Your task to perform on an android device: delete location history Image 0: 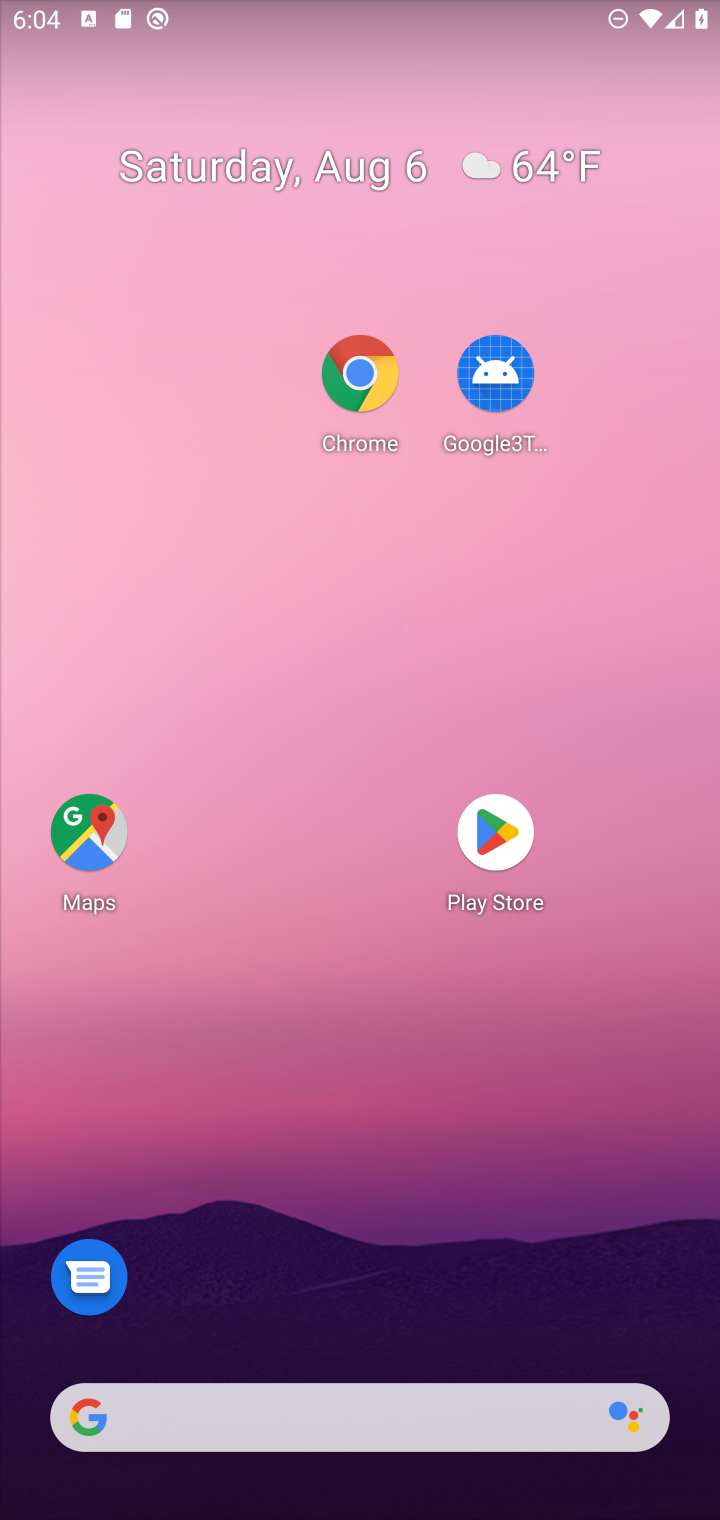
Step 0: drag from (439, 1422) to (677, 616)
Your task to perform on an android device: delete location history Image 1: 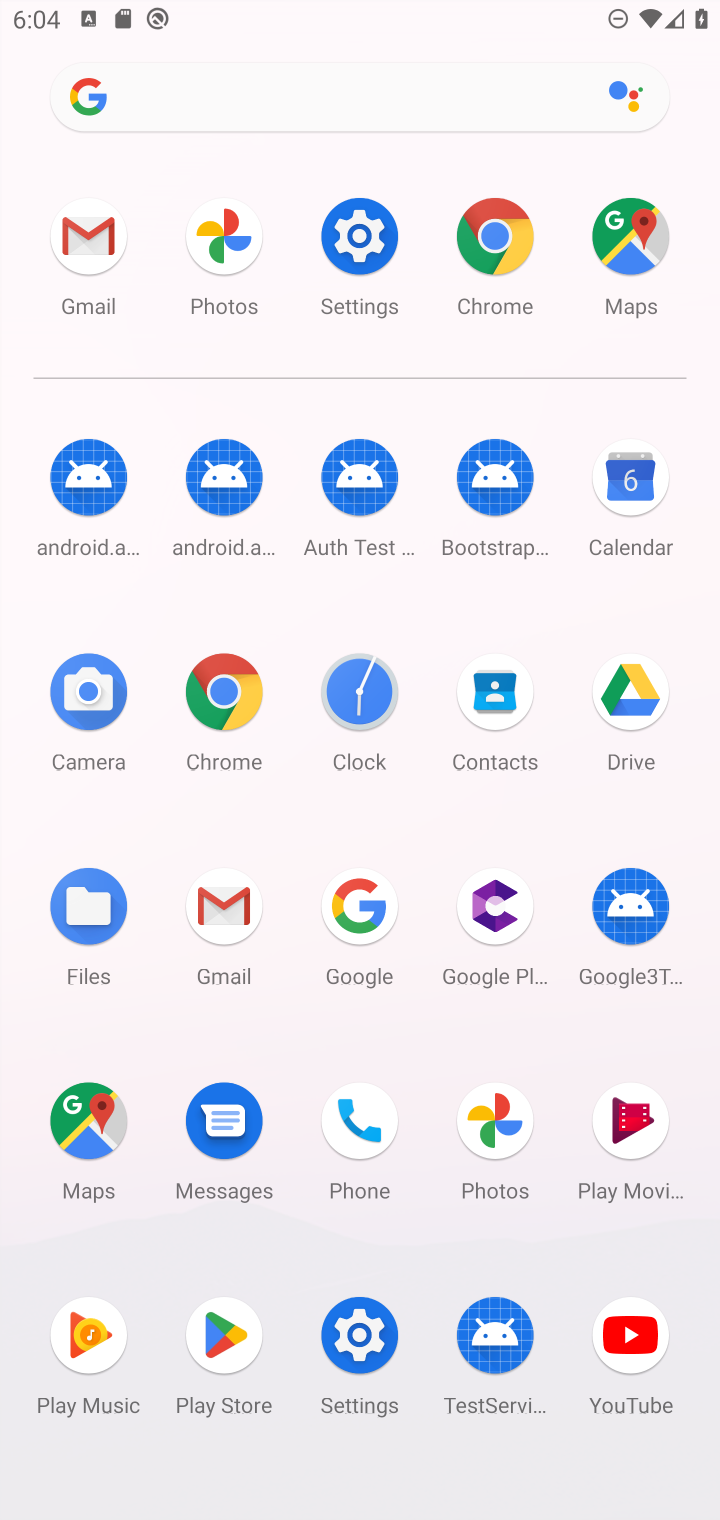
Step 1: click (68, 1099)
Your task to perform on an android device: delete location history Image 2: 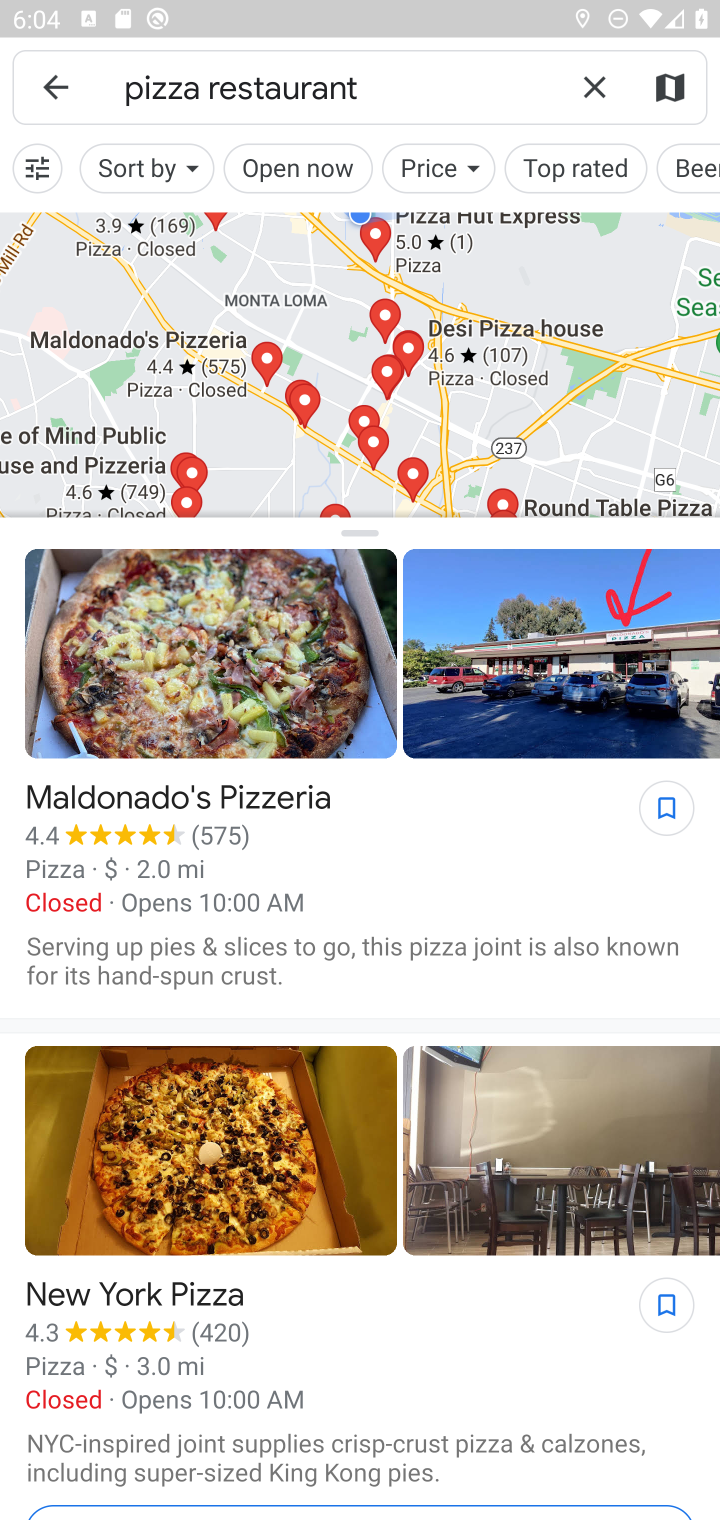
Step 2: press back button
Your task to perform on an android device: delete location history Image 3: 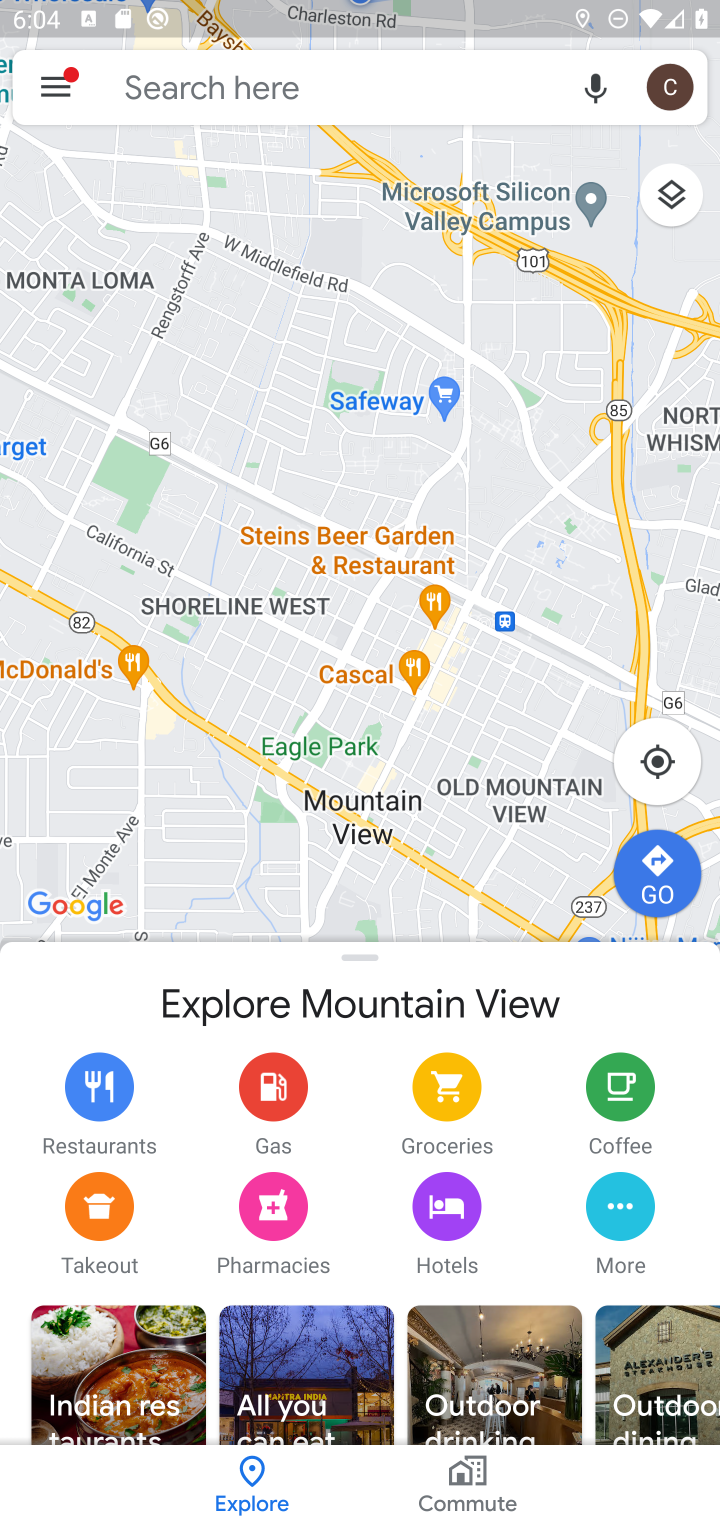
Step 3: click (32, 76)
Your task to perform on an android device: delete location history Image 4: 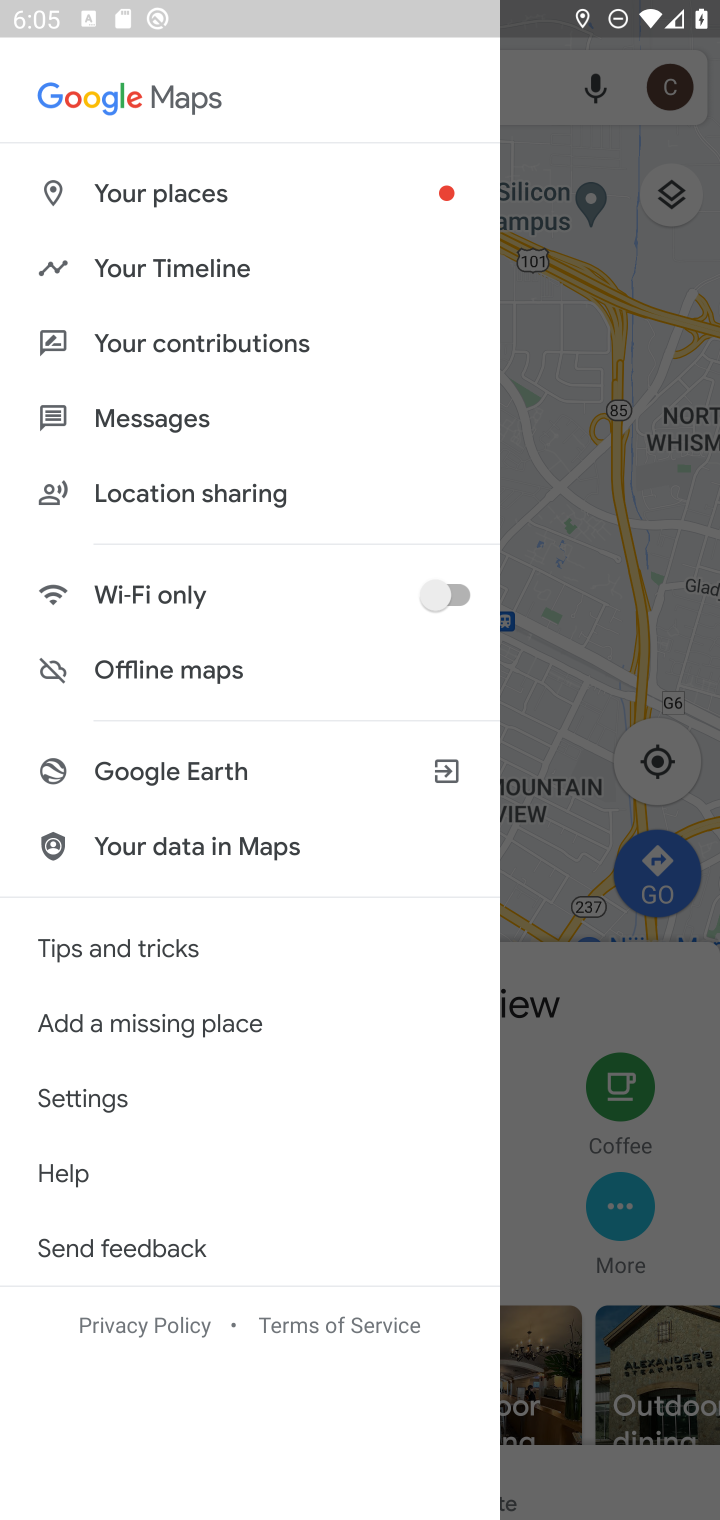
Step 4: click (223, 282)
Your task to perform on an android device: delete location history Image 5: 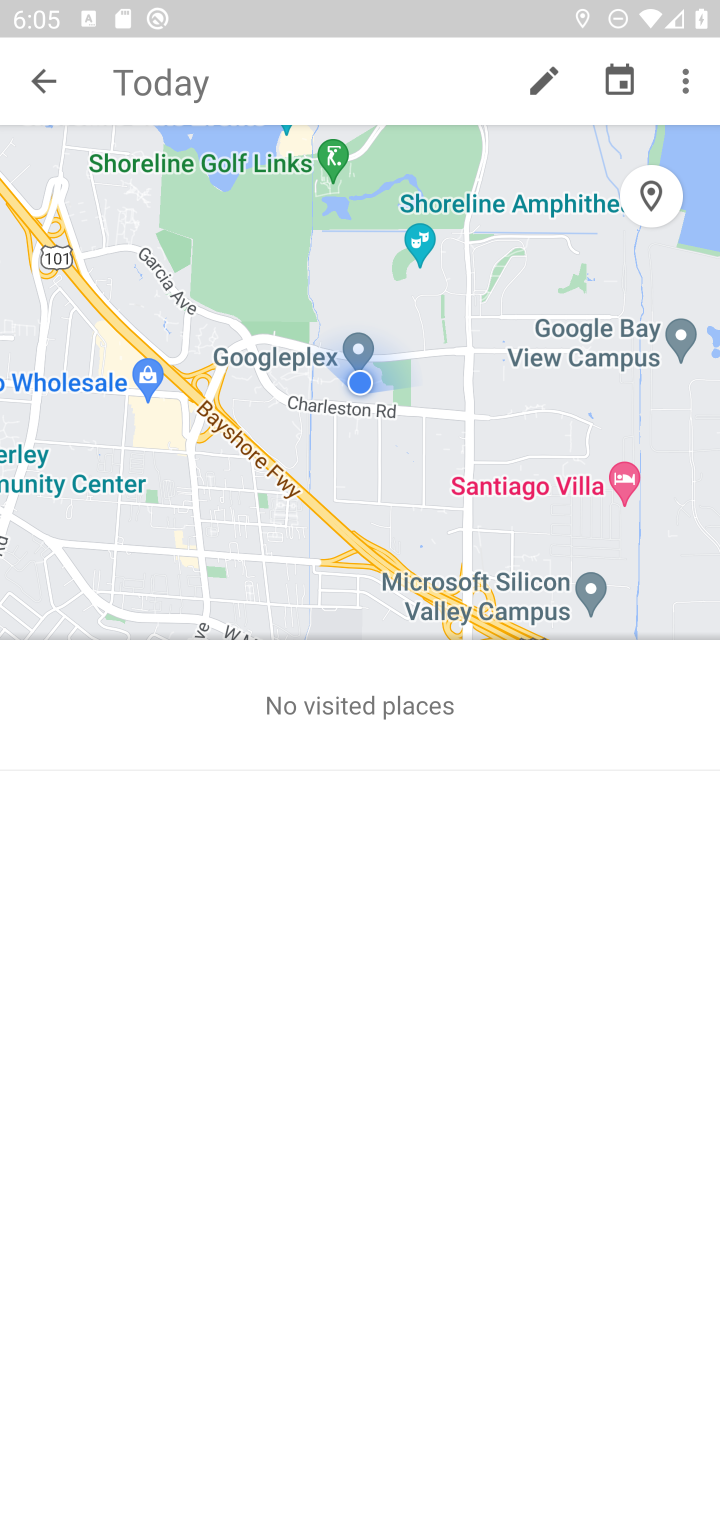
Step 5: click (681, 77)
Your task to perform on an android device: delete location history Image 6: 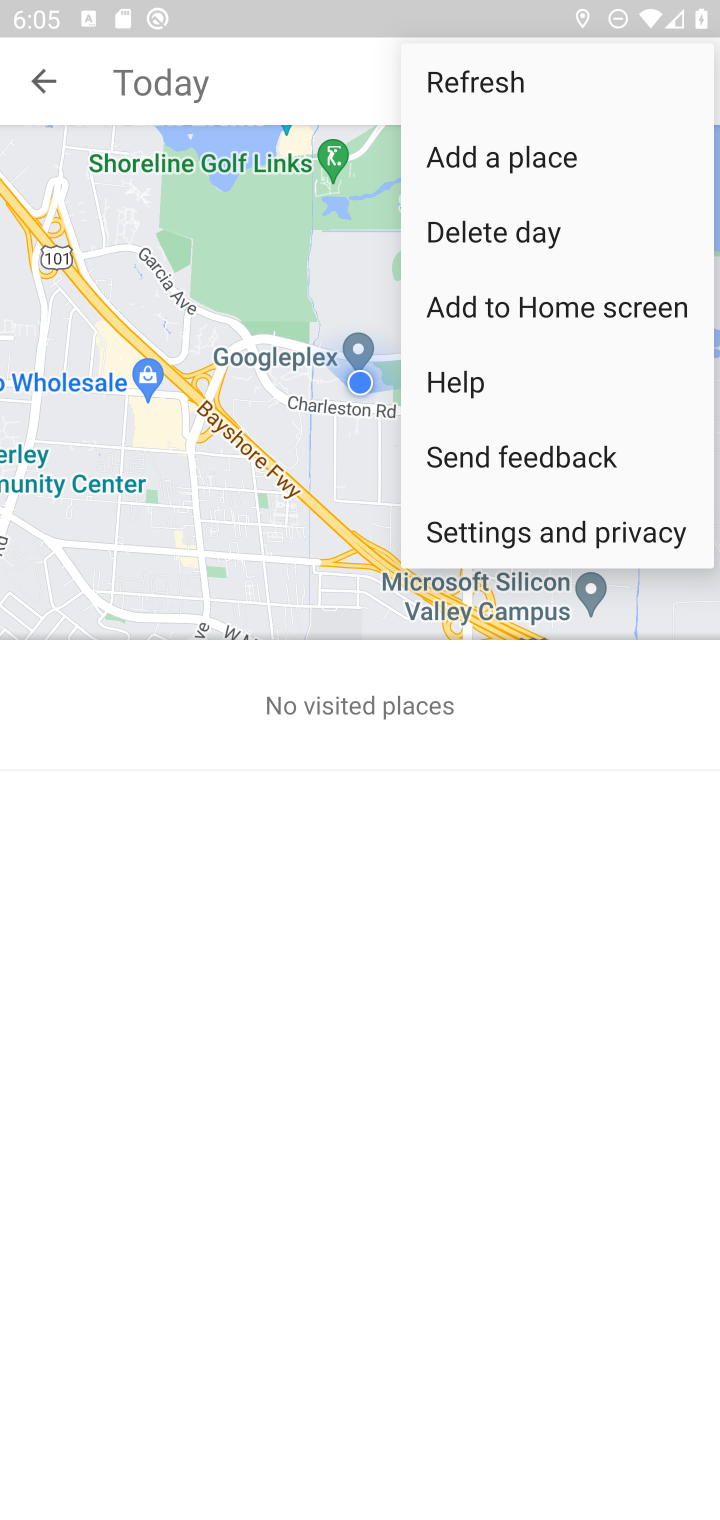
Step 6: click (681, 77)
Your task to perform on an android device: delete location history Image 7: 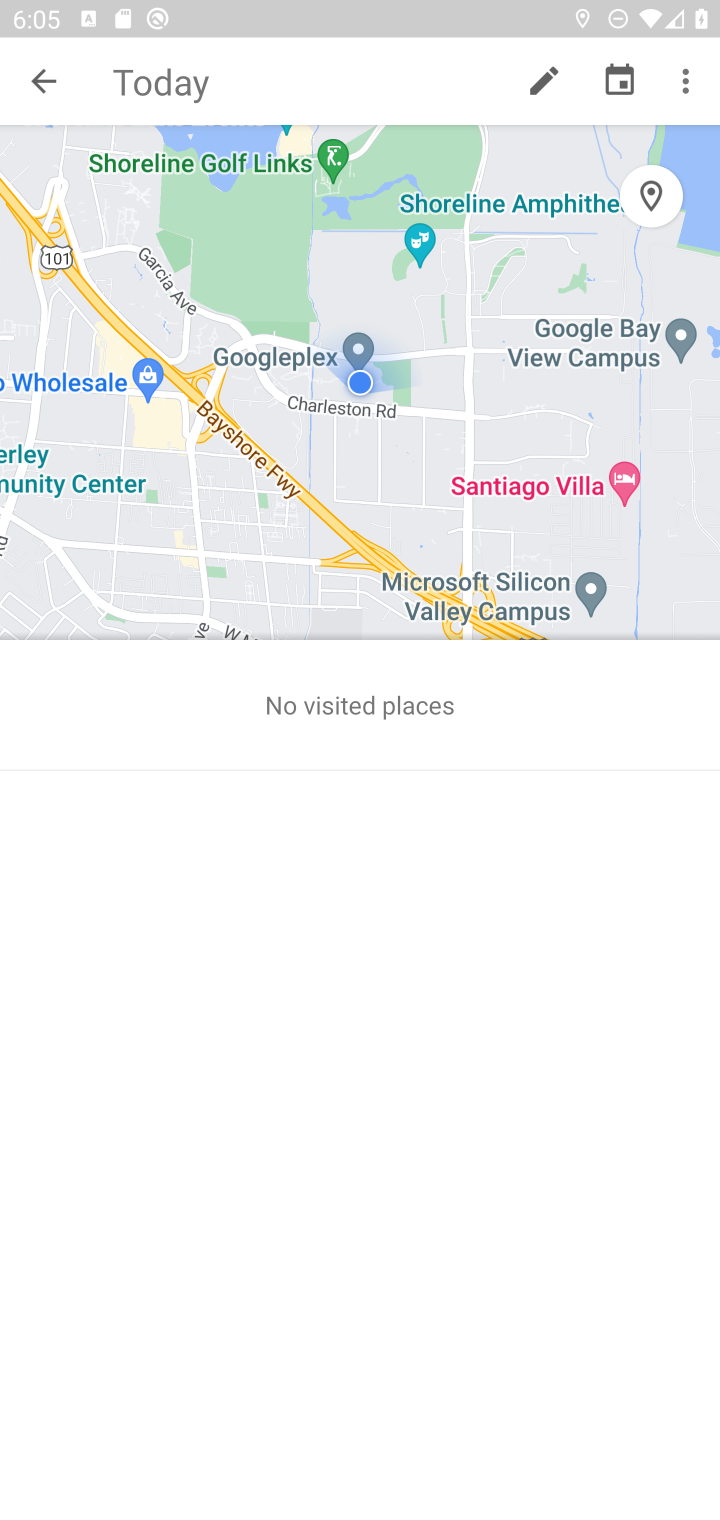
Step 7: click (681, 77)
Your task to perform on an android device: delete location history Image 8: 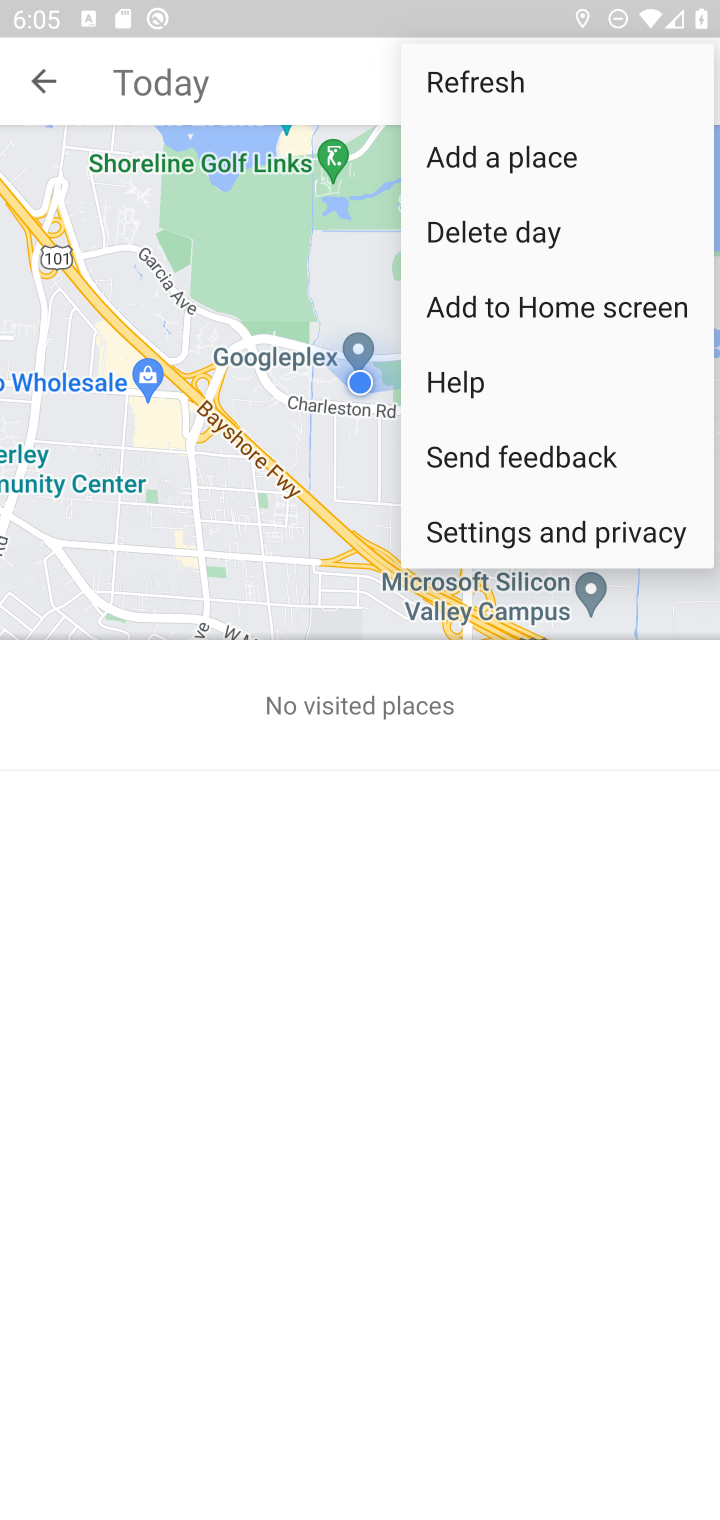
Step 8: click (468, 535)
Your task to perform on an android device: delete location history Image 9: 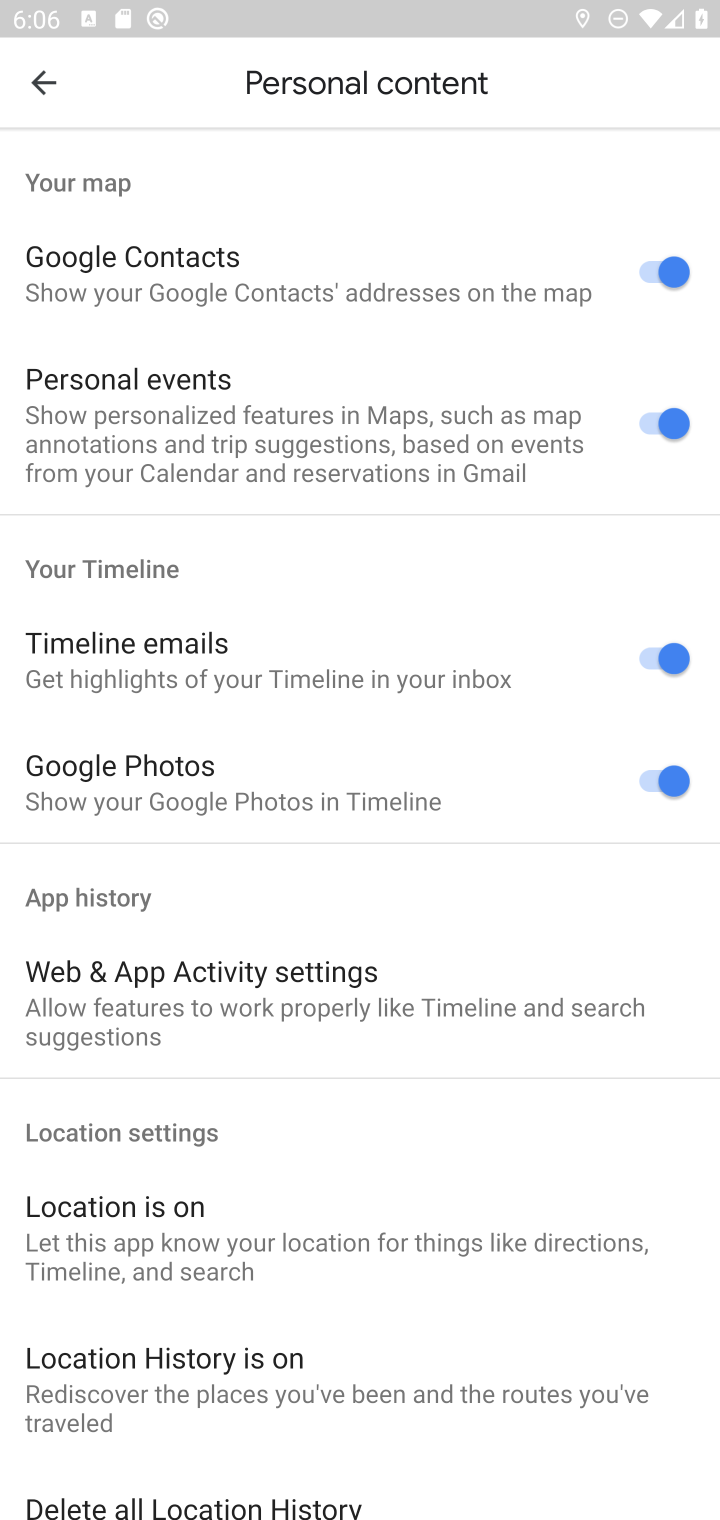
Step 9: drag from (615, 1443) to (621, 602)
Your task to perform on an android device: delete location history Image 10: 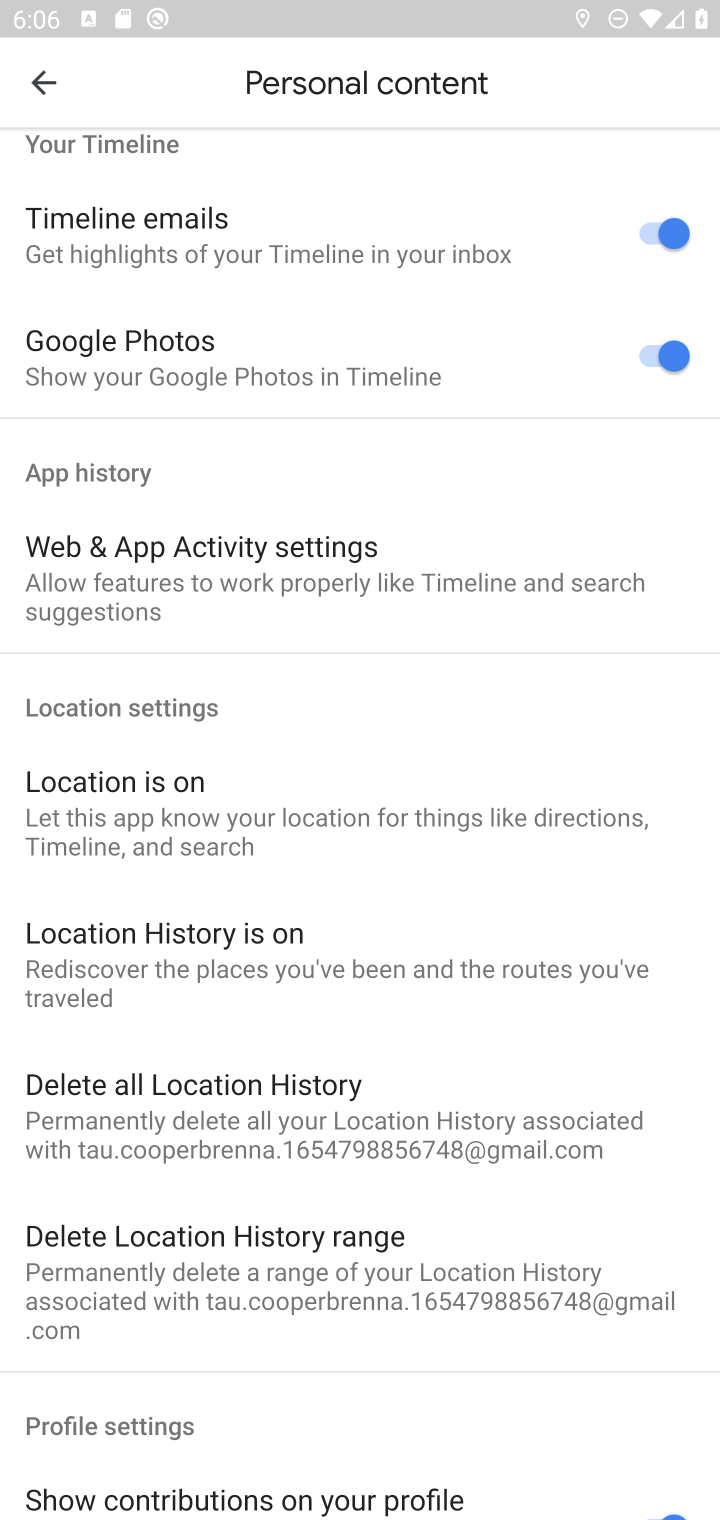
Step 10: click (322, 1326)
Your task to perform on an android device: delete location history Image 11: 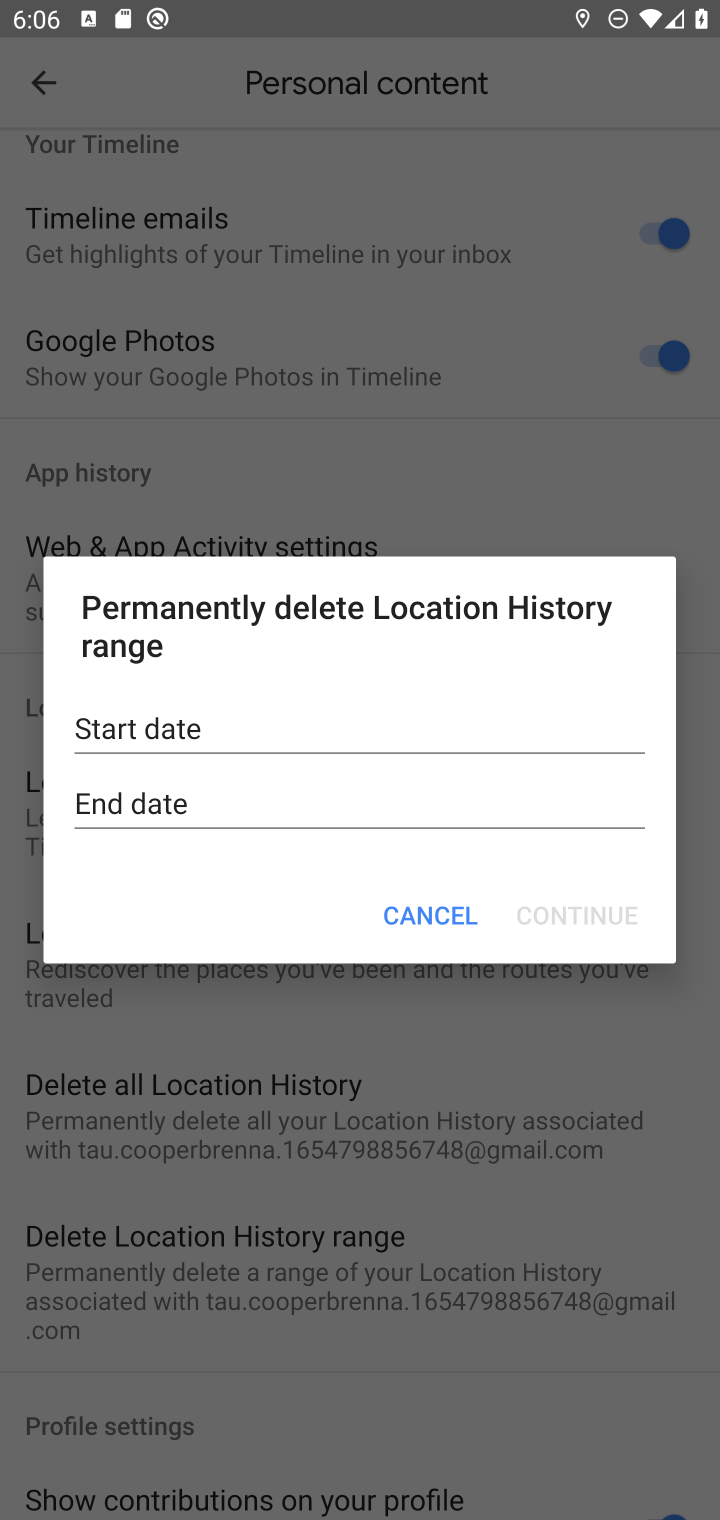
Step 11: click (441, 897)
Your task to perform on an android device: delete location history Image 12: 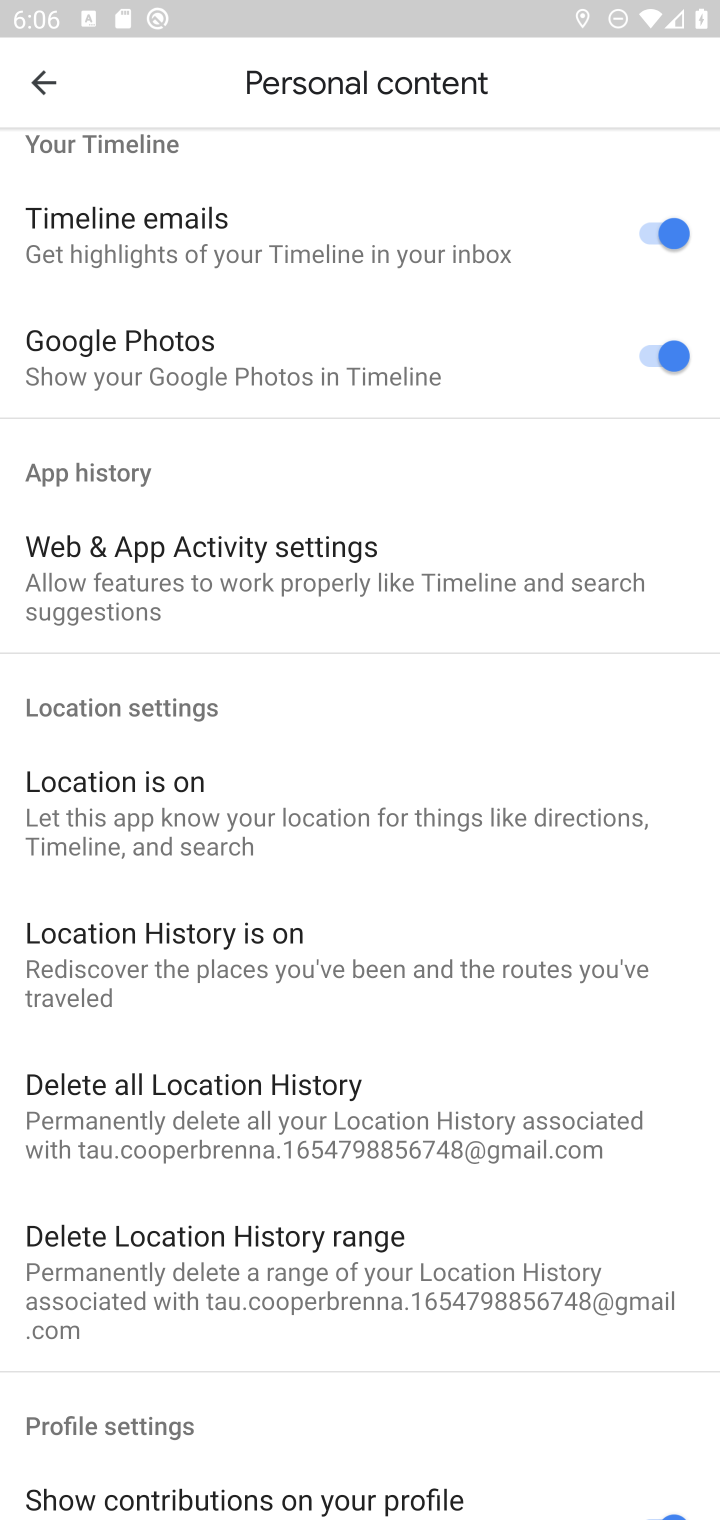
Step 12: click (265, 1100)
Your task to perform on an android device: delete location history Image 13: 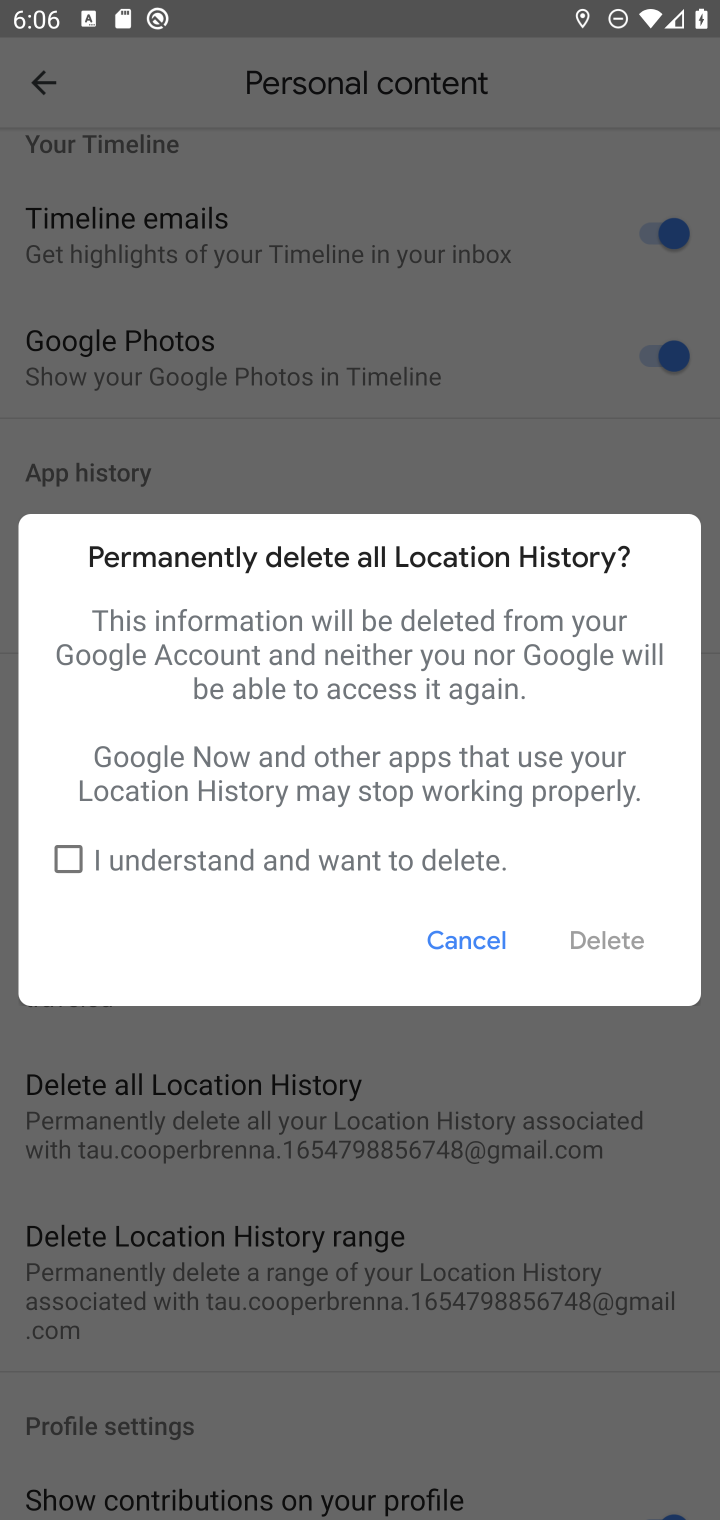
Step 13: click (68, 847)
Your task to perform on an android device: delete location history Image 14: 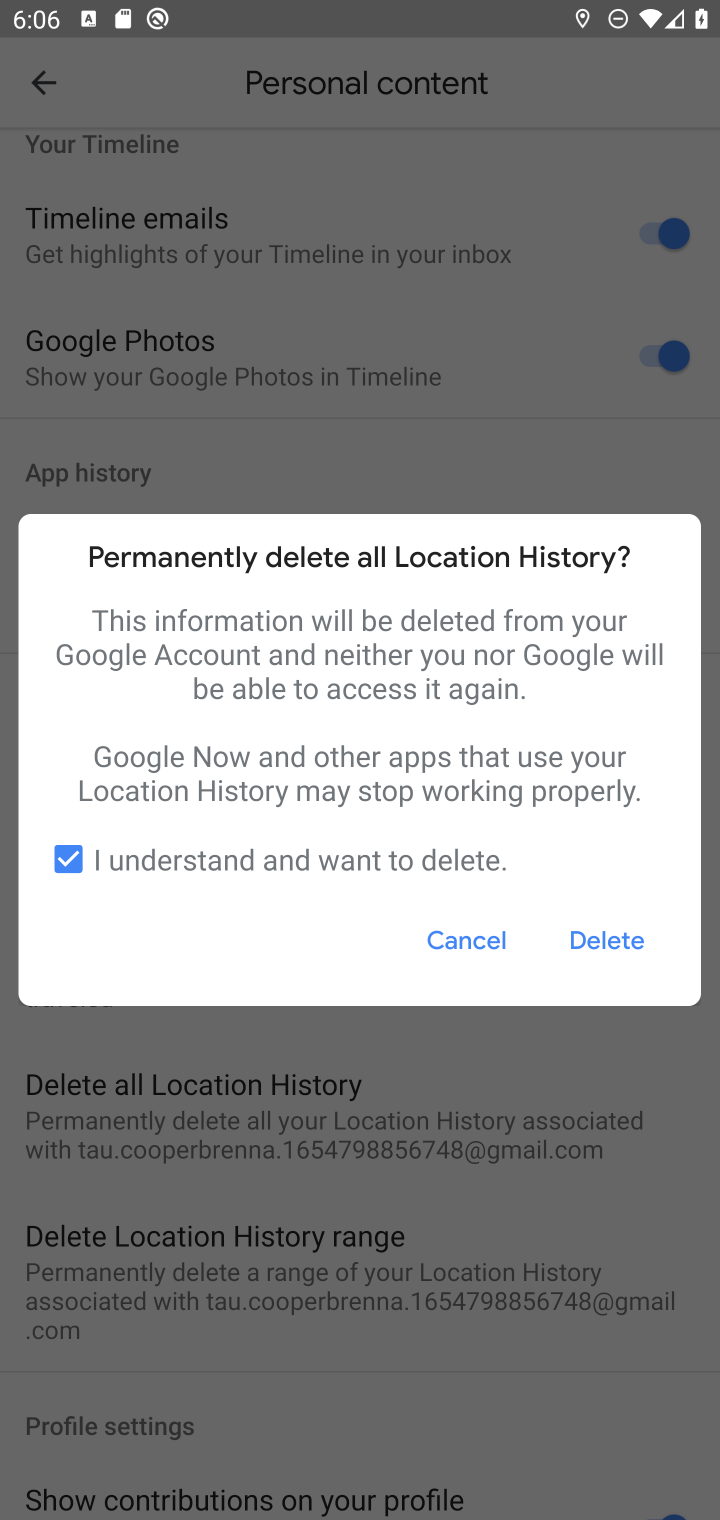
Step 14: click (603, 937)
Your task to perform on an android device: delete location history Image 15: 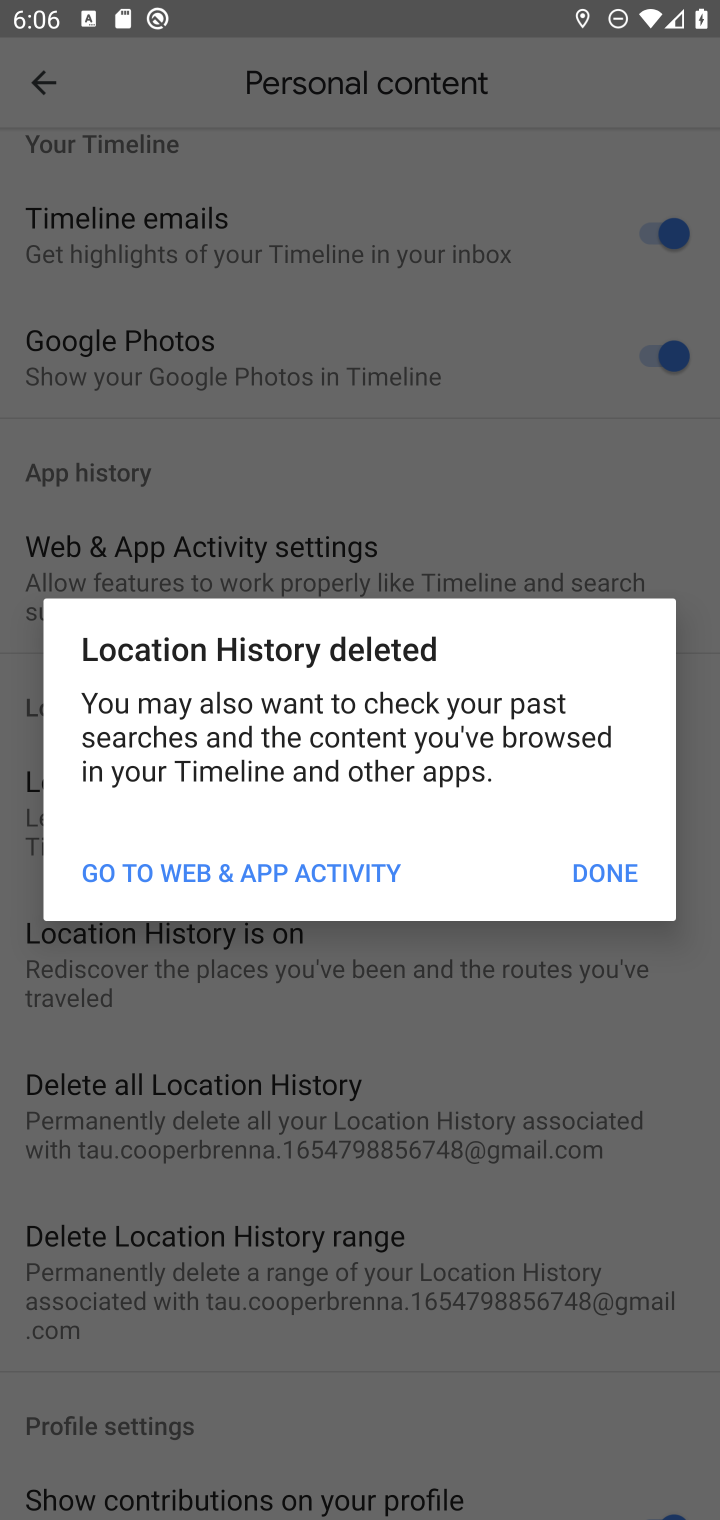
Step 15: task complete